Your task to perform on an android device: allow notifications from all sites in the chrome app Image 0: 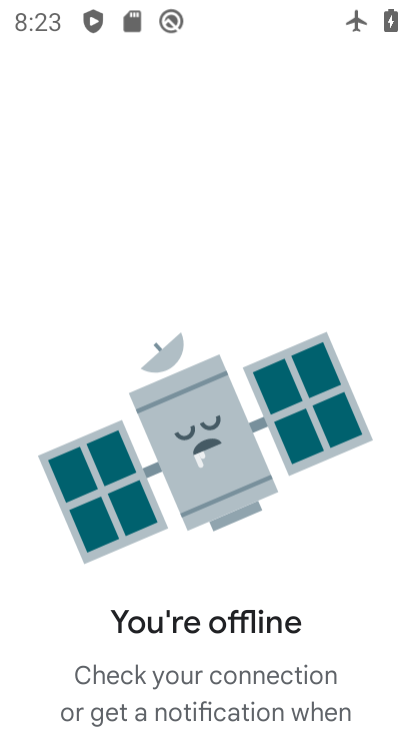
Step 0: press home button
Your task to perform on an android device: allow notifications from all sites in the chrome app Image 1: 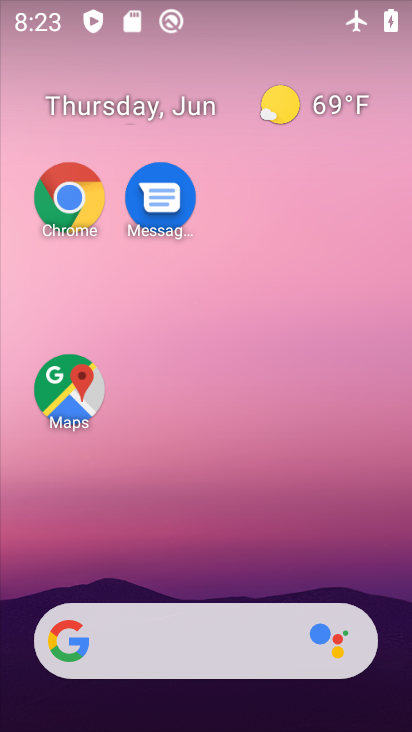
Step 1: drag from (186, 587) to (256, 68)
Your task to perform on an android device: allow notifications from all sites in the chrome app Image 2: 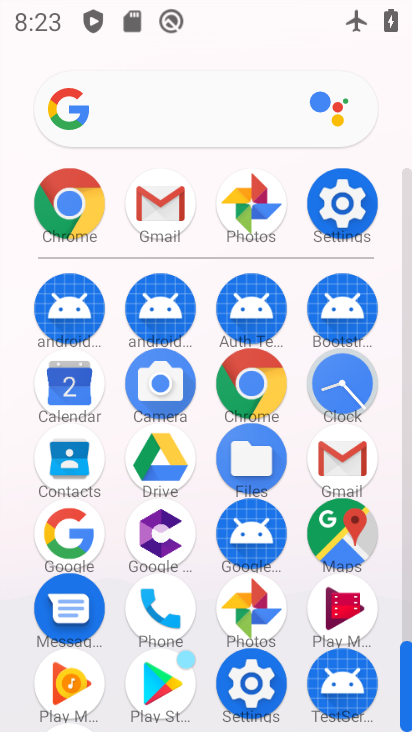
Step 2: click (254, 367)
Your task to perform on an android device: allow notifications from all sites in the chrome app Image 3: 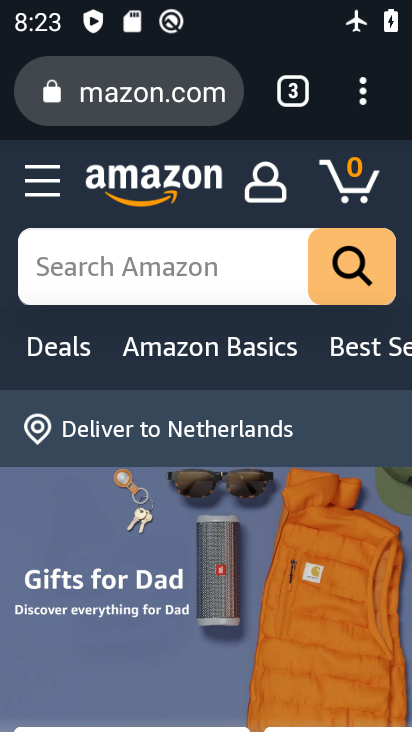
Step 3: click (364, 89)
Your task to perform on an android device: allow notifications from all sites in the chrome app Image 4: 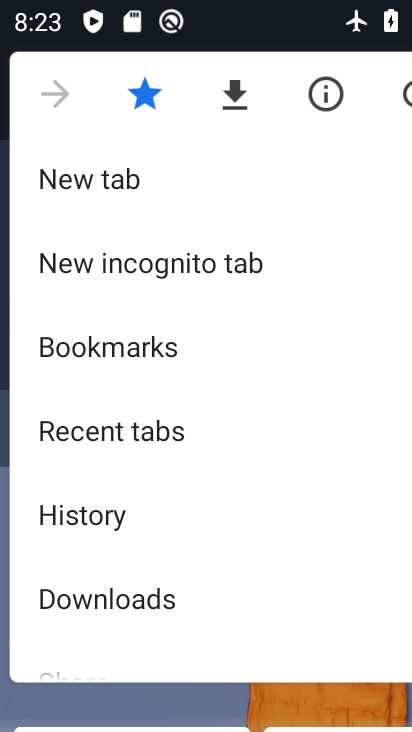
Step 4: drag from (172, 612) to (111, 180)
Your task to perform on an android device: allow notifications from all sites in the chrome app Image 5: 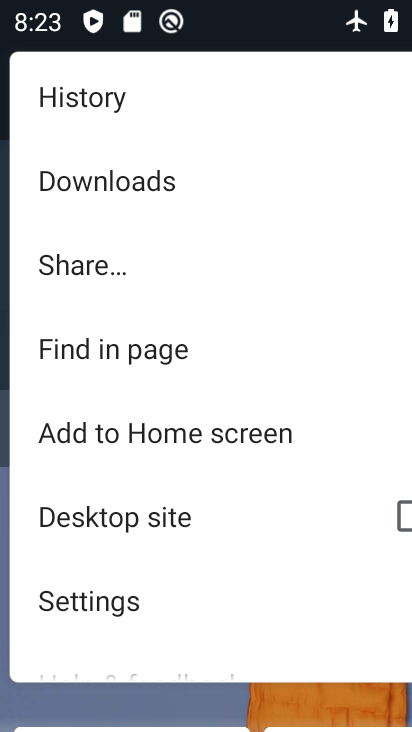
Step 5: click (70, 589)
Your task to perform on an android device: allow notifications from all sites in the chrome app Image 6: 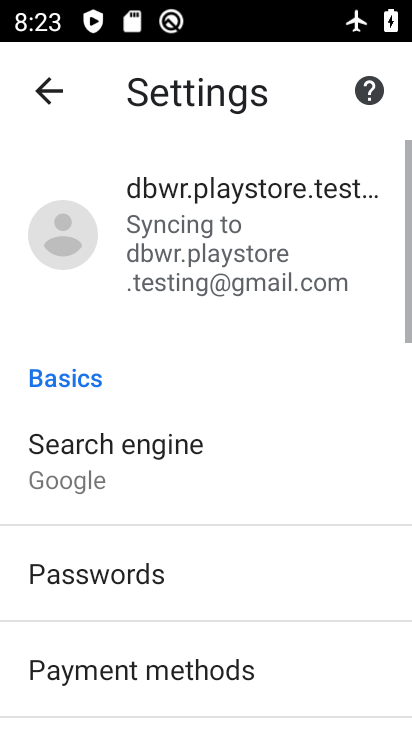
Step 6: drag from (70, 589) to (30, 191)
Your task to perform on an android device: allow notifications from all sites in the chrome app Image 7: 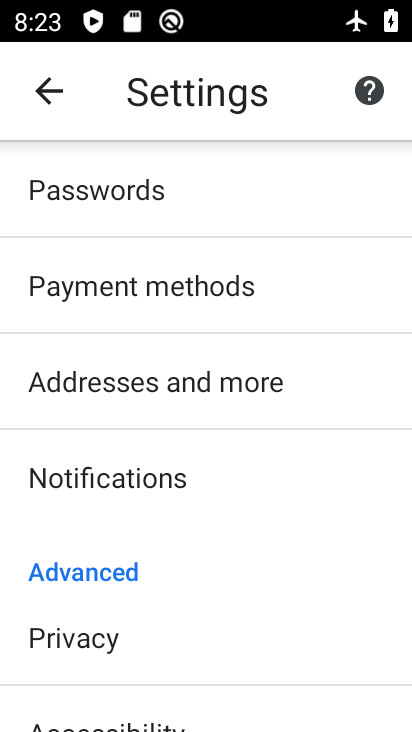
Step 7: click (63, 465)
Your task to perform on an android device: allow notifications from all sites in the chrome app Image 8: 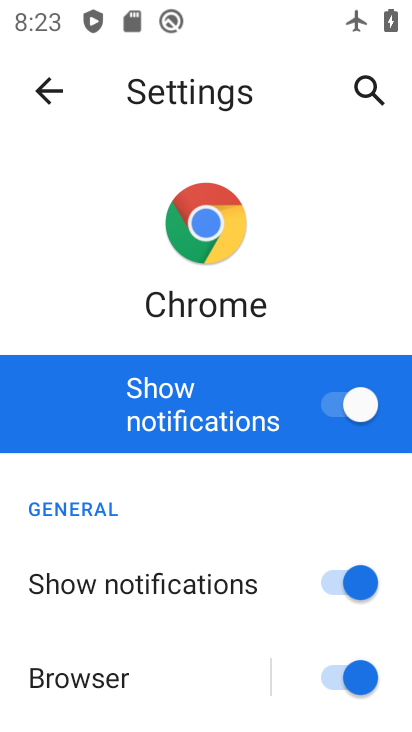
Step 8: click (47, 107)
Your task to perform on an android device: allow notifications from all sites in the chrome app Image 9: 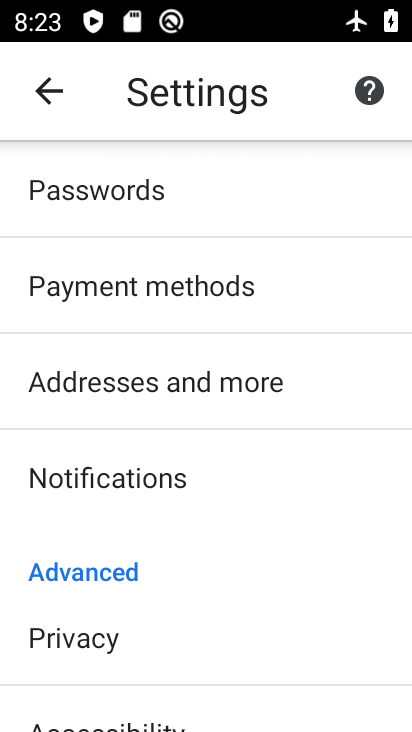
Step 9: drag from (138, 627) to (156, 169)
Your task to perform on an android device: allow notifications from all sites in the chrome app Image 10: 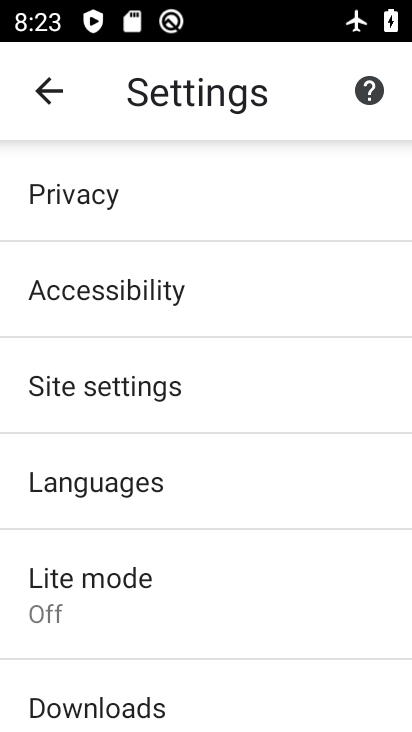
Step 10: click (117, 398)
Your task to perform on an android device: allow notifications from all sites in the chrome app Image 11: 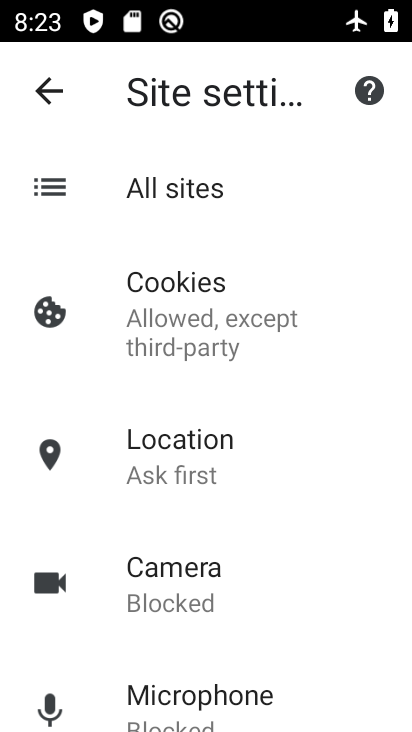
Step 11: drag from (169, 541) to (167, 320)
Your task to perform on an android device: allow notifications from all sites in the chrome app Image 12: 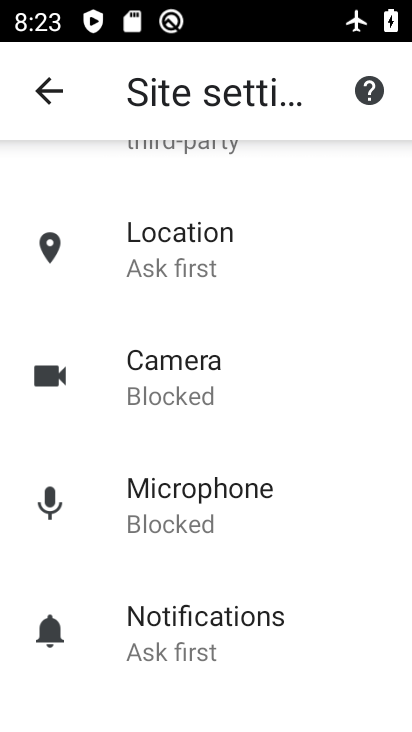
Step 12: click (139, 686)
Your task to perform on an android device: allow notifications from all sites in the chrome app Image 13: 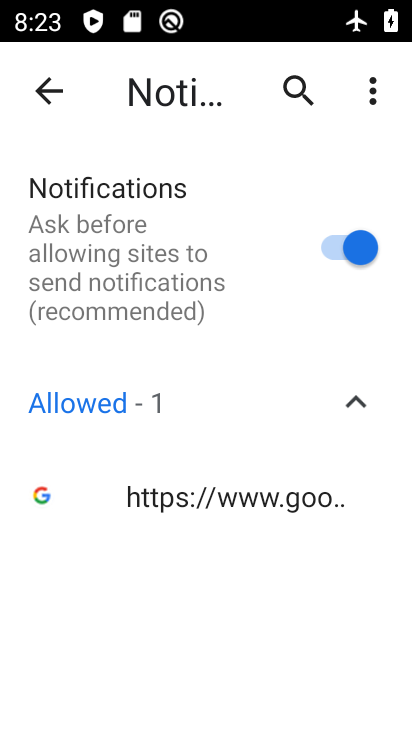
Step 13: task complete